Your task to perform on an android device: What is the news today? Image 0: 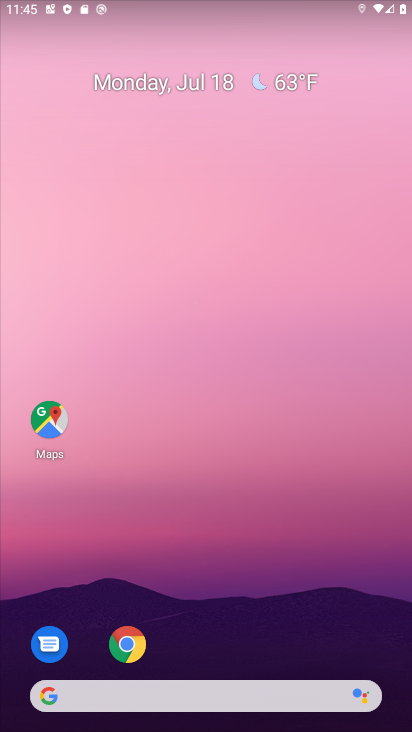
Step 0: click (3, 286)
Your task to perform on an android device: What is the news today? Image 1: 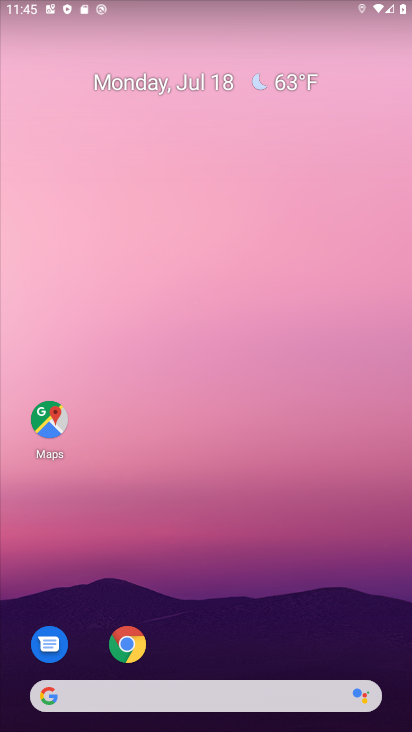
Step 1: click (311, 299)
Your task to perform on an android device: What is the news today? Image 2: 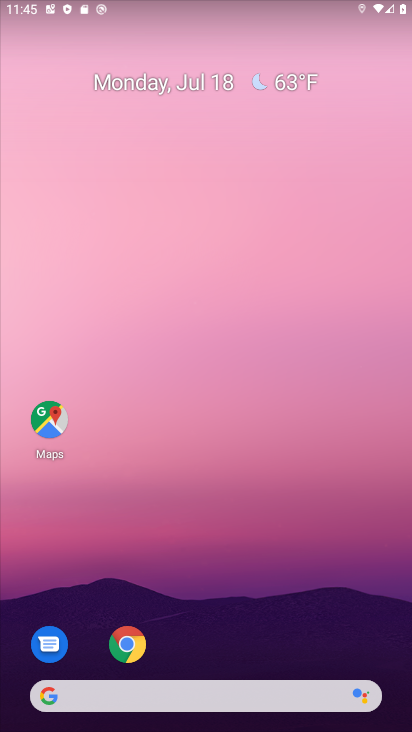
Step 2: drag from (2, 249) to (81, 250)
Your task to perform on an android device: What is the news today? Image 3: 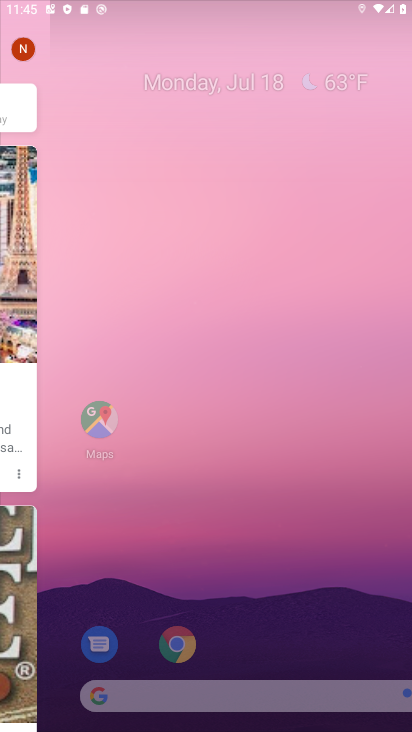
Step 3: click (387, 250)
Your task to perform on an android device: What is the news today? Image 4: 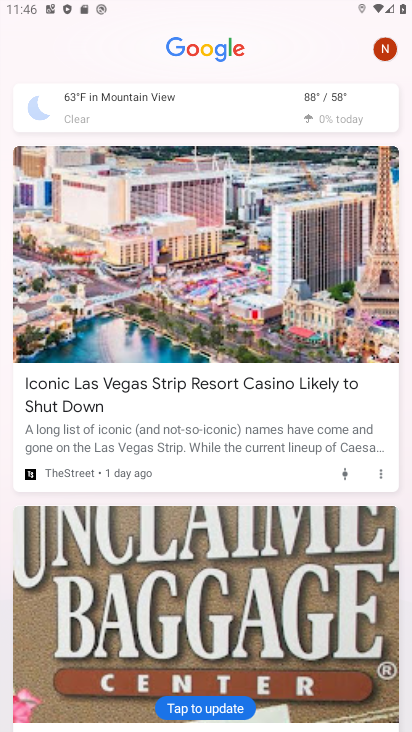
Step 4: task complete